Your task to perform on an android device: Open Chrome and go to the settings page Image 0: 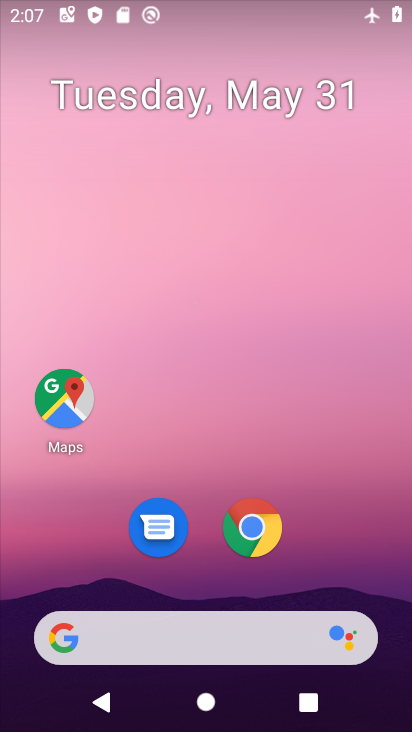
Step 0: drag from (356, 582) to (389, 68)
Your task to perform on an android device: Open Chrome and go to the settings page Image 1: 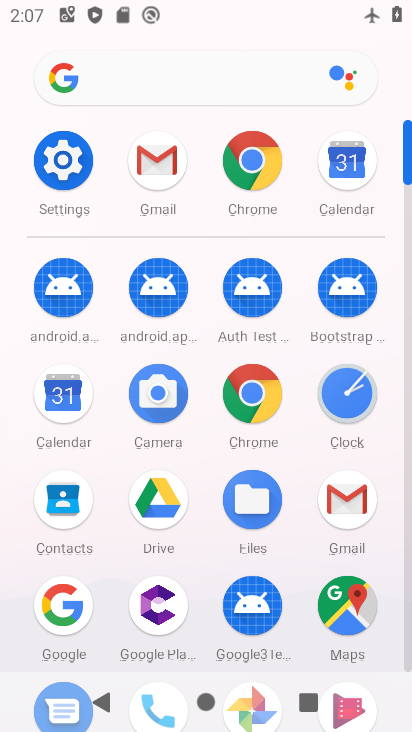
Step 1: click (244, 167)
Your task to perform on an android device: Open Chrome and go to the settings page Image 2: 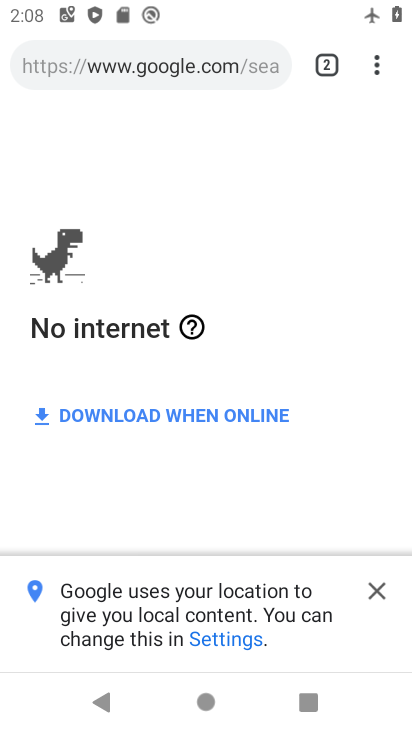
Step 2: task complete